Your task to perform on an android device: Open calendar and show me the second week of next month Image 0: 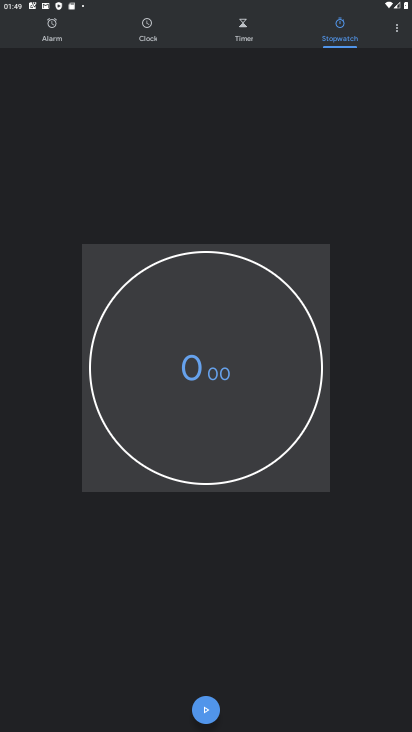
Step 0: press home button
Your task to perform on an android device: Open calendar and show me the second week of next month Image 1: 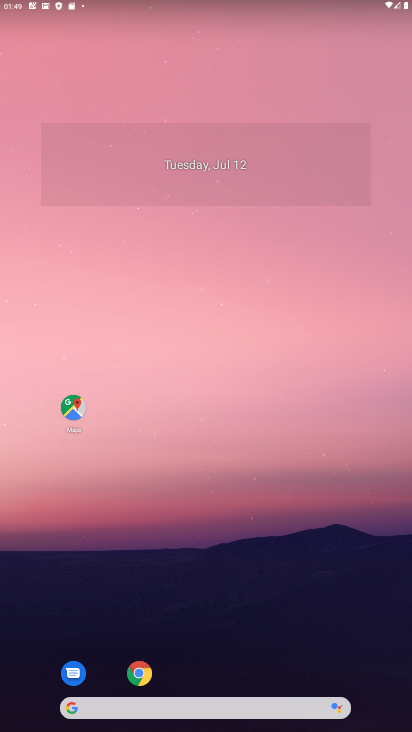
Step 1: drag from (246, 604) to (172, 115)
Your task to perform on an android device: Open calendar and show me the second week of next month Image 2: 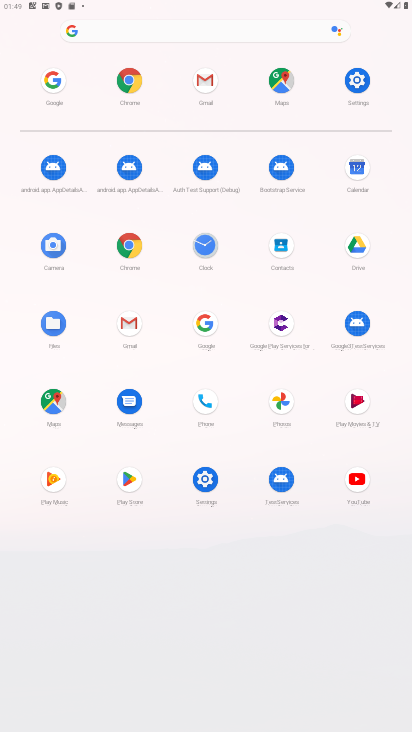
Step 2: click (366, 170)
Your task to perform on an android device: Open calendar and show me the second week of next month Image 3: 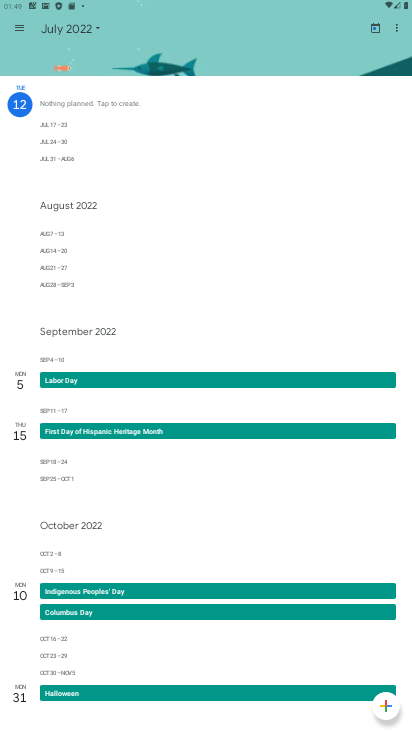
Step 3: click (17, 25)
Your task to perform on an android device: Open calendar and show me the second week of next month Image 4: 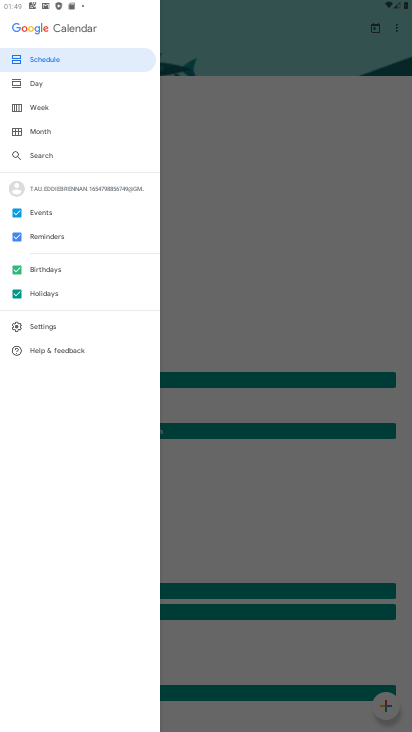
Step 4: click (37, 105)
Your task to perform on an android device: Open calendar and show me the second week of next month Image 5: 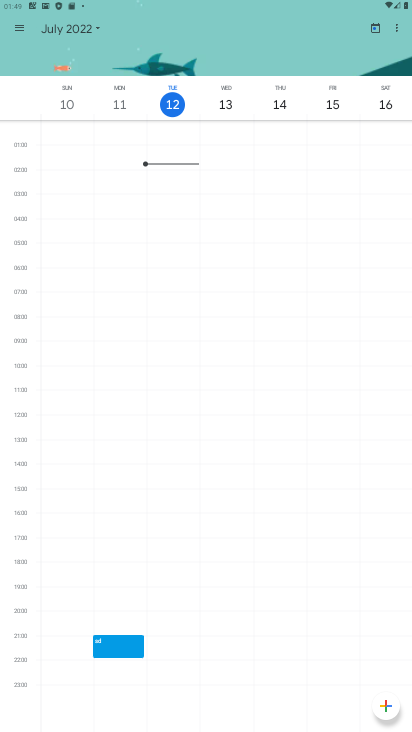
Step 5: task complete